Your task to perform on an android device: add a contact in the contacts app Image 0: 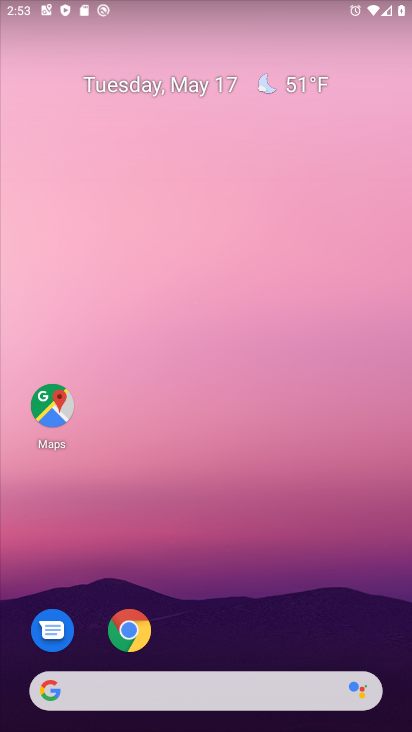
Step 0: drag from (205, 586) to (292, 16)
Your task to perform on an android device: add a contact in the contacts app Image 1: 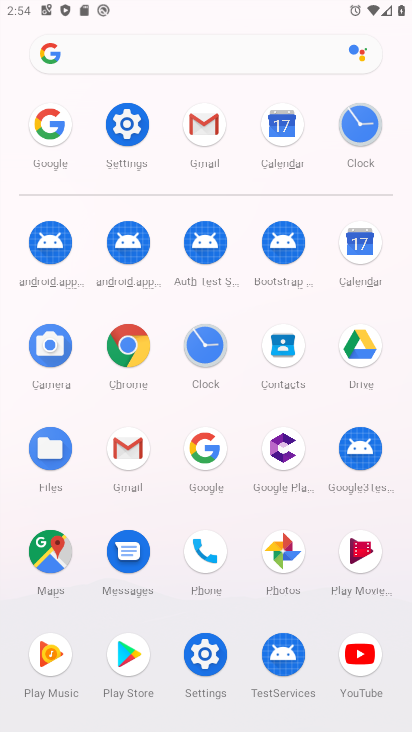
Step 1: click (281, 353)
Your task to perform on an android device: add a contact in the contacts app Image 2: 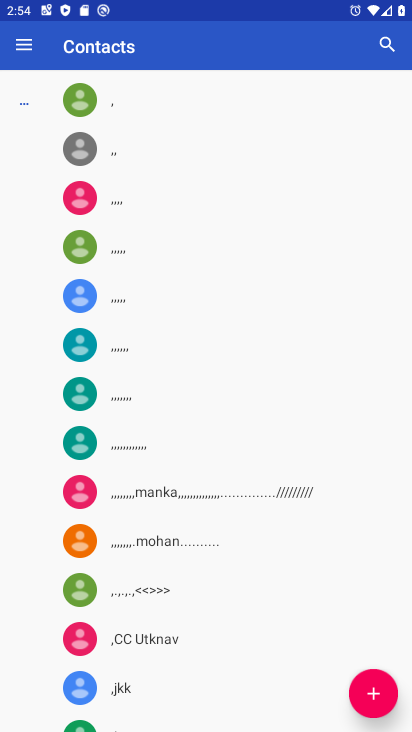
Step 2: click (362, 681)
Your task to perform on an android device: add a contact in the contacts app Image 3: 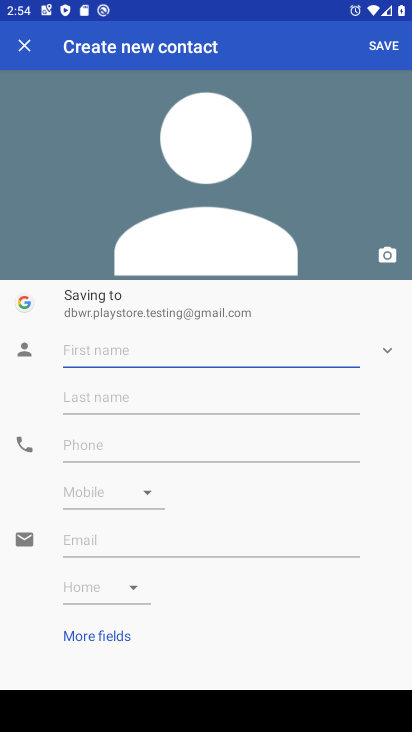
Step 3: click (90, 344)
Your task to perform on an android device: add a contact in the contacts app Image 4: 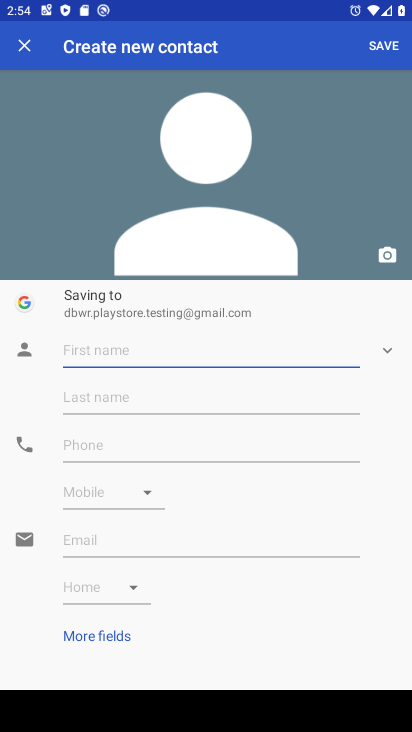
Step 4: type "gvgv"
Your task to perform on an android device: add a contact in the contacts app Image 5: 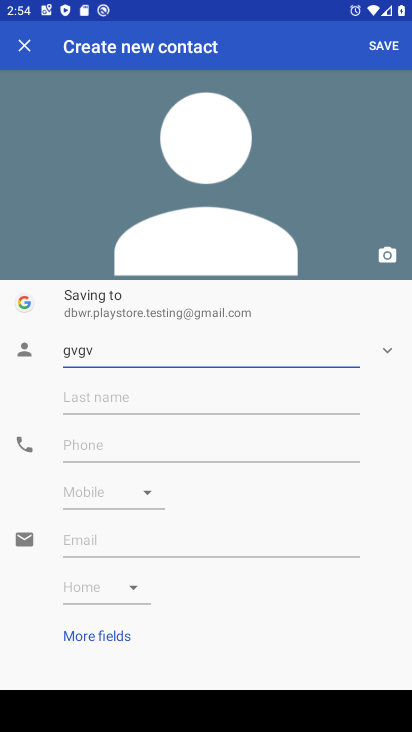
Step 5: click (81, 381)
Your task to perform on an android device: add a contact in the contacts app Image 6: 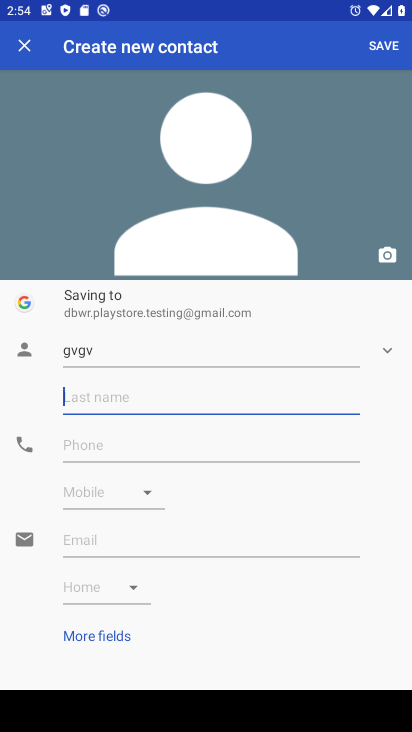
Step 6: type "78979"
Your task to perform on an android device: add a contact in the contacts app Image 7: 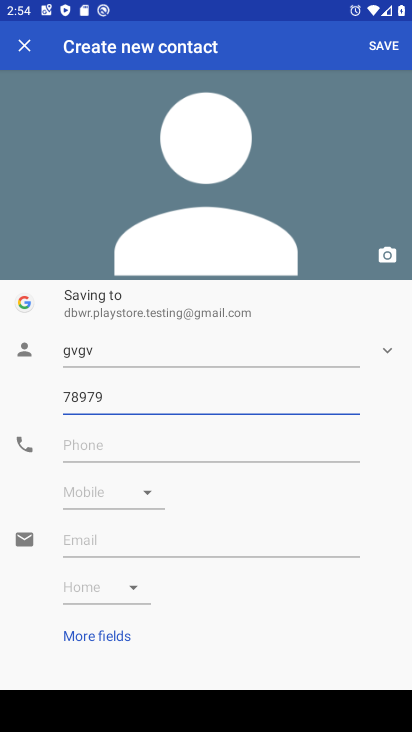
Step 7: click (384, 44)
Your task to perform on an android device: add a contact in the contacts app Image 8: 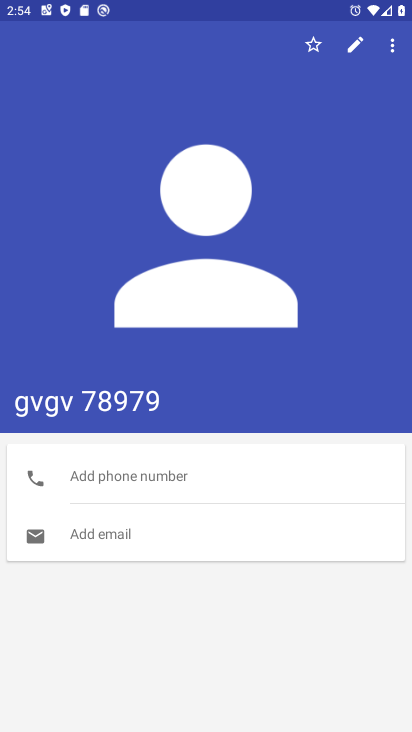
Step 8: task complete